Your task to perform on an android device: change the clock display to show seconds Image 0: 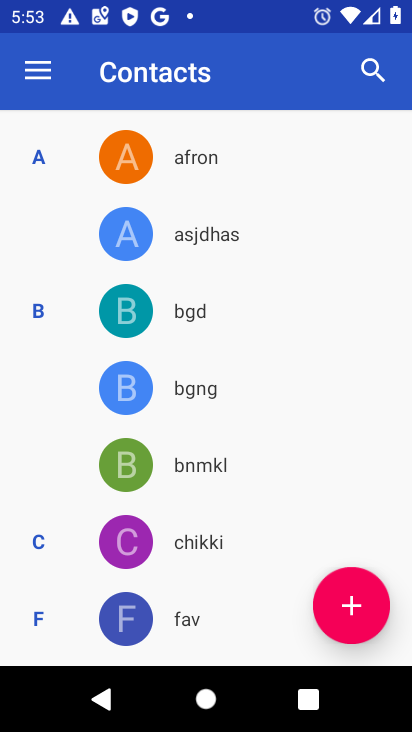
Step 0: press home button
Your task to perform on an android device: change the clock display to show seconds Image 1: 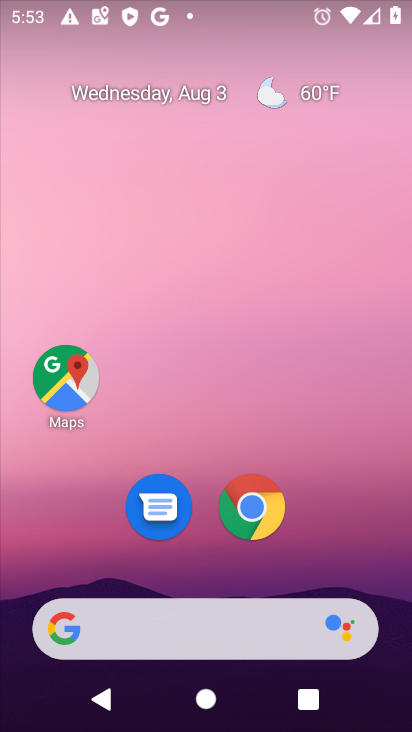
Step 1: drag from (365, 598) to (378, 82)
Your task to perform on an android device: change the clock display to show seconds Image 2: 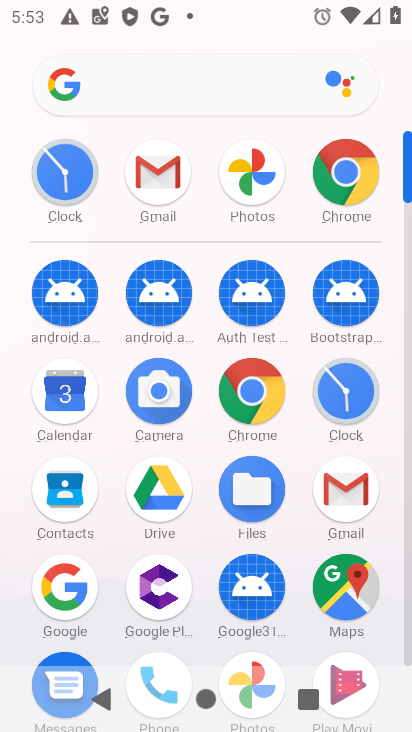
Step 2: click (354, 389)
Your task to perform on an android device: change the clock display to show seconds Image 3: 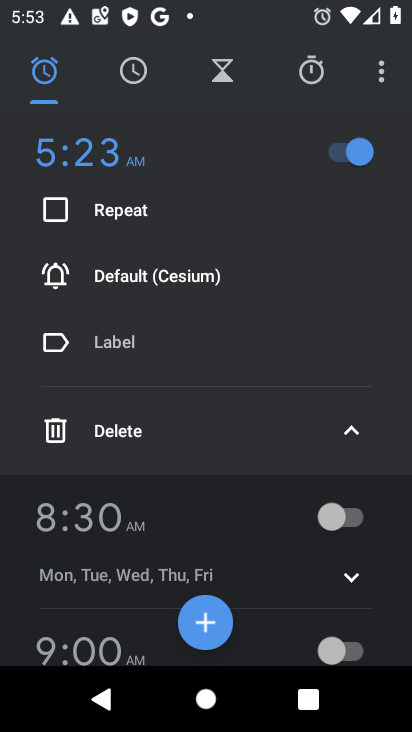
Step 3: click (385, 53)
Your task to perform on an android device: change the clock display to show seconds Image 4: 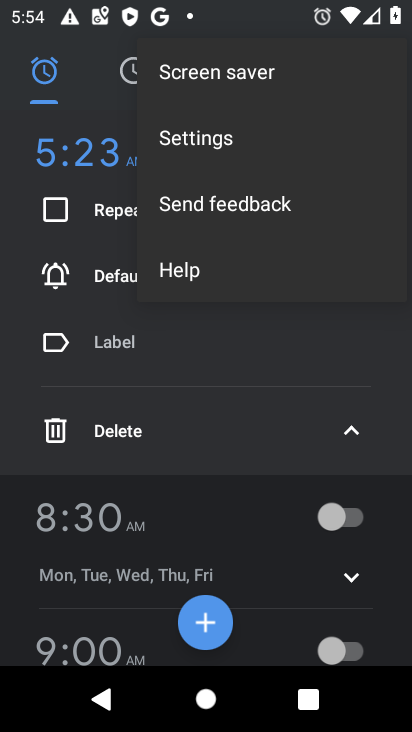
Step 4: click (222, 142)
Your task to perform on an android device: change the clock display to show seconds Image 5: 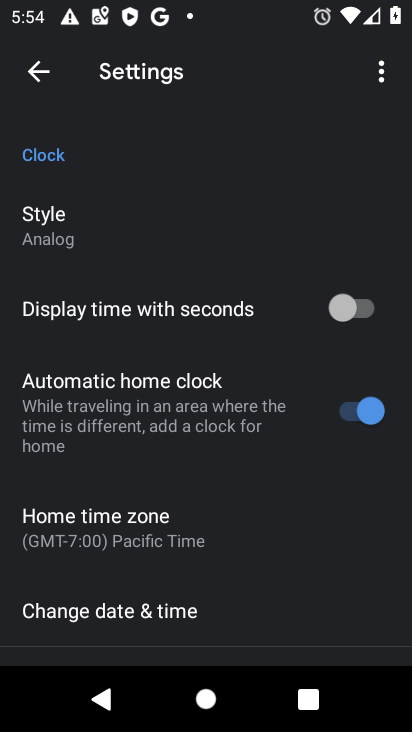
Step 5: click (263, 307)
Your task to perform on an android device: change the clock display to show seconds Image 6: 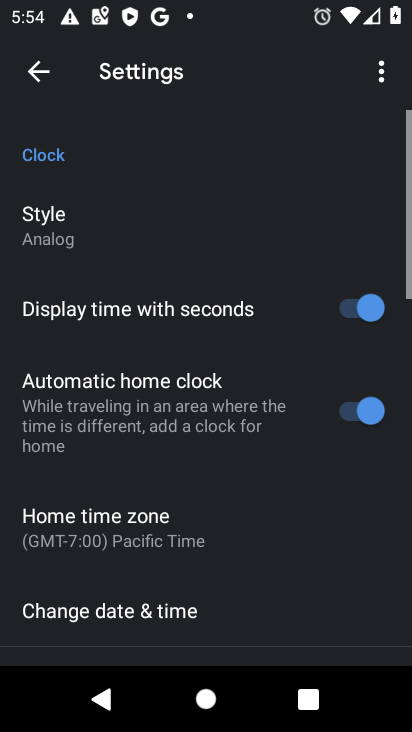
Step 6: task complete